Your task to perform on an android device: check the backup settings in the google photos Image 0: 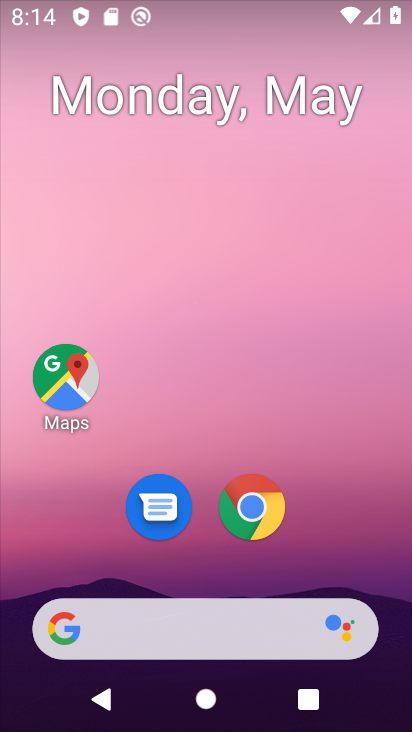
Step 0: drag from (206, 554) to (295, 0)
Your task to perform on an android device: check the backup settings in the google photos Image 1: 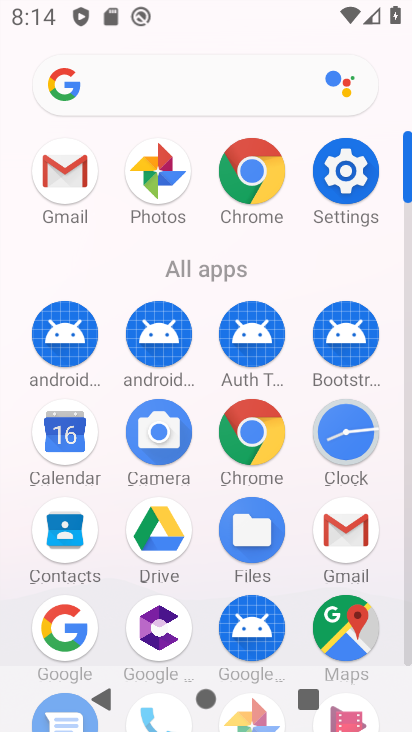
Step 1: drag from (207, 581) to (208, 367)
Your task to perform on an android device: check the backup settings in the google photos Image 2: 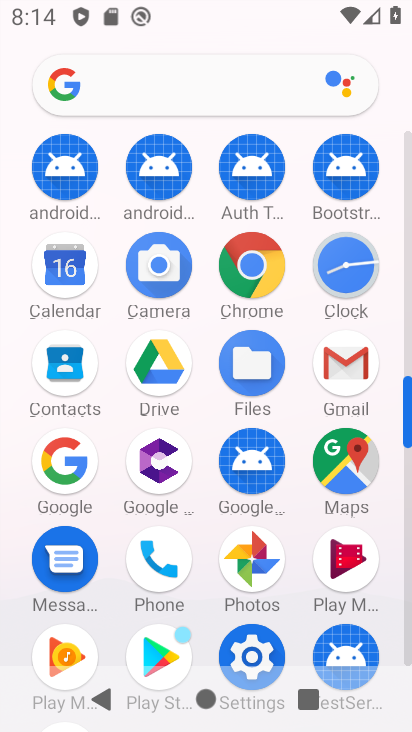
Step 2: click (242, 571)
Your task to perform on an android device: check the backup settings in the google photos Image 3: 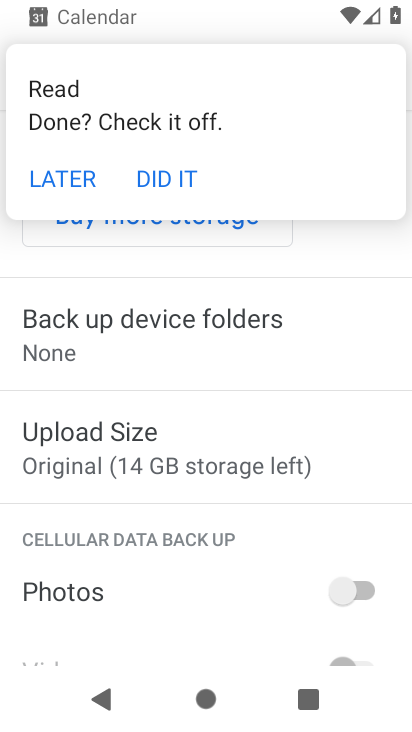
Step 3: task complete